Your task to perform on an android device: Search for flights from Buenos aires to Seoul Image 0: 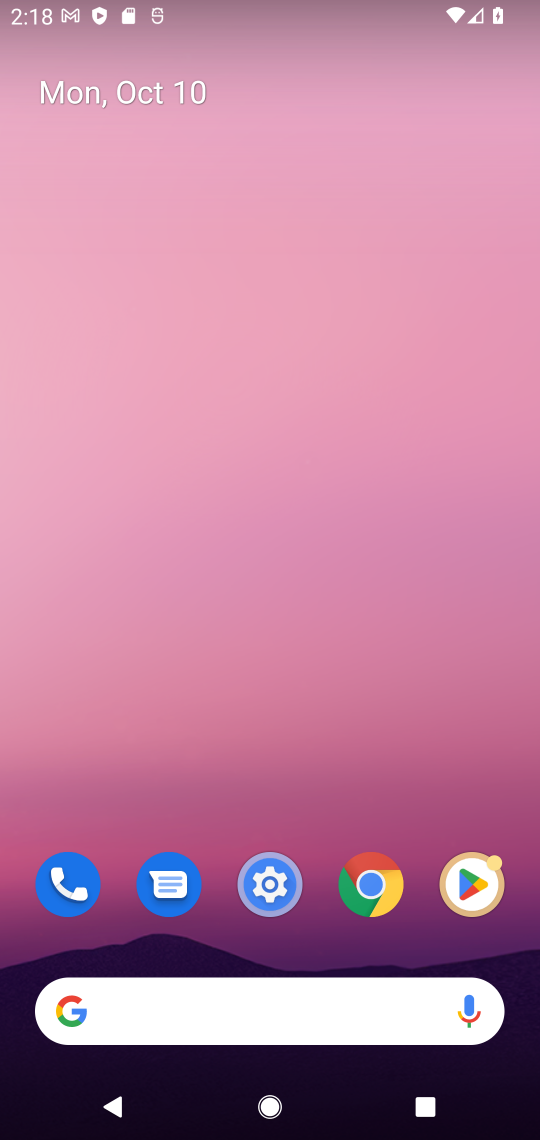
Step 0: click (378, 890)
Your task to perform on an android device: Search for flights from Buenos aires to Seoul Image 1: 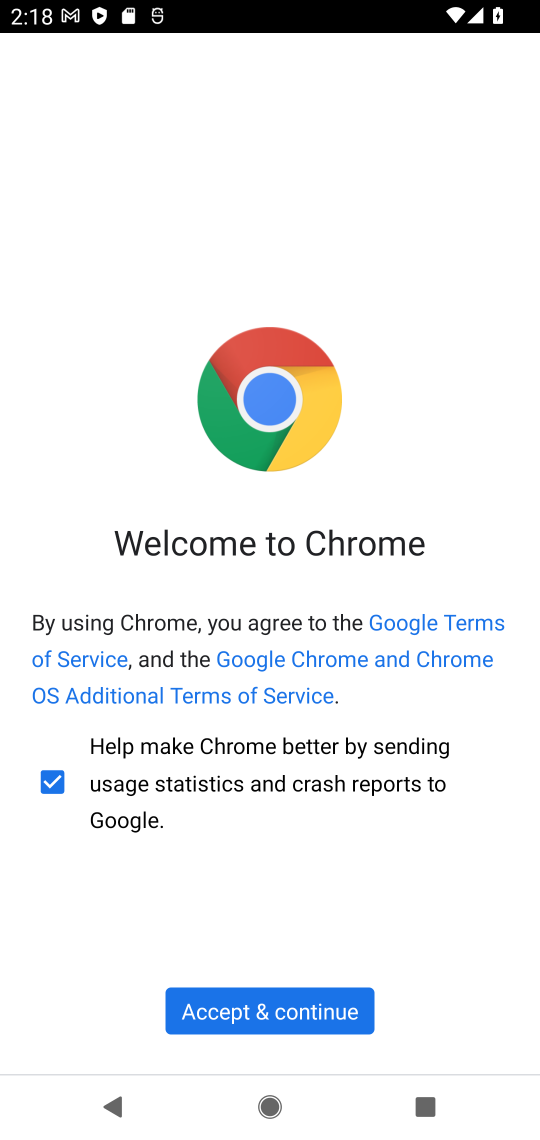
Step 1: click (291, 1006)
Your task to perform on an android device: Search for flights from Buenos aires to Seoul Image 2: 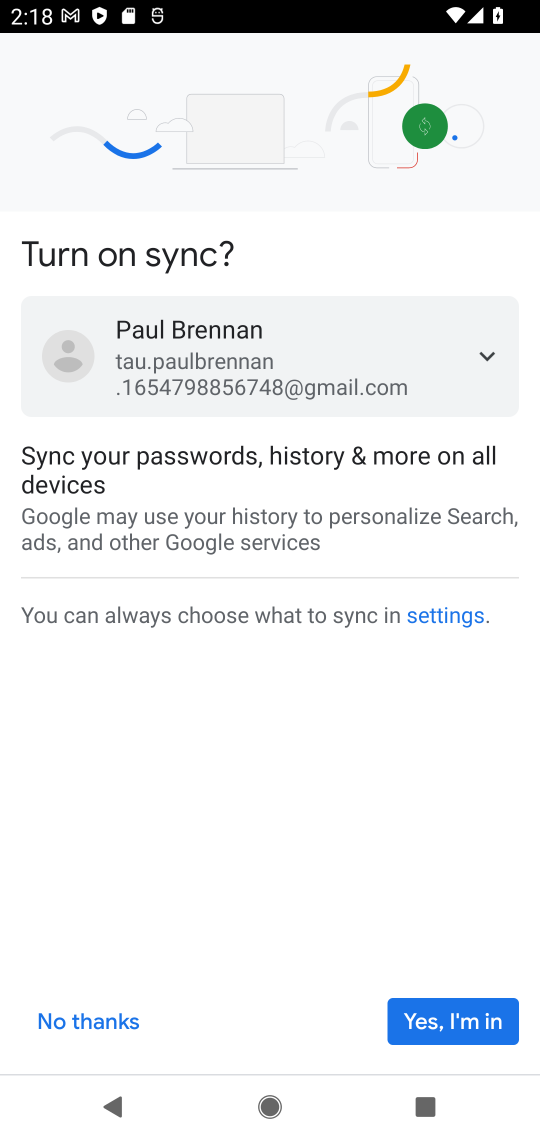
Step 2: click (100, 1031)
Your task to perform on an android device: Search for flights from Buenos aires to Seoul Image 3: 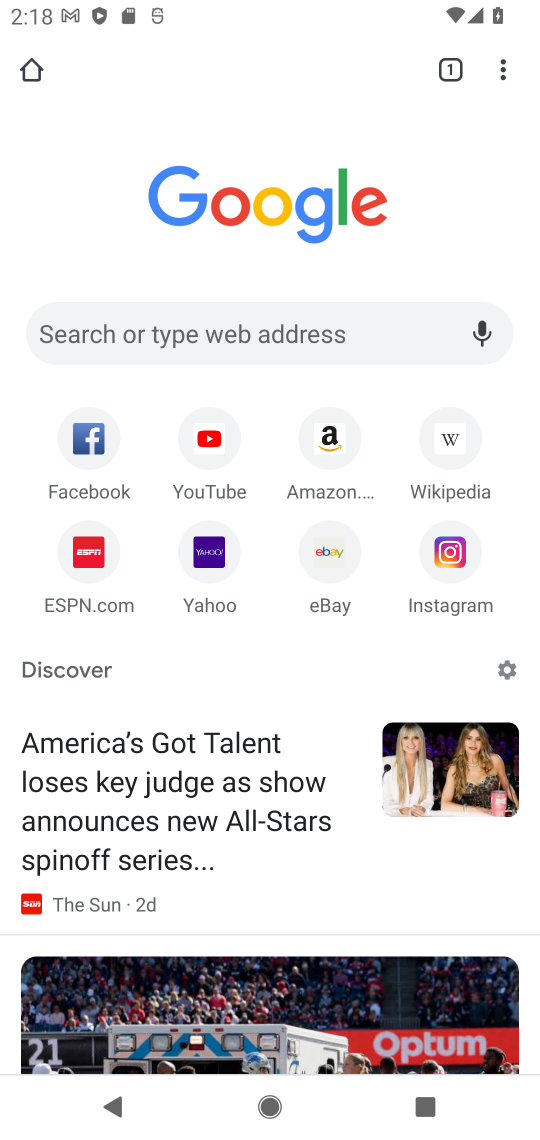
Step 3: click (142, 342)
Your task to perform on an android device: Search for flights from Buenos aires to Seoul Image 4: 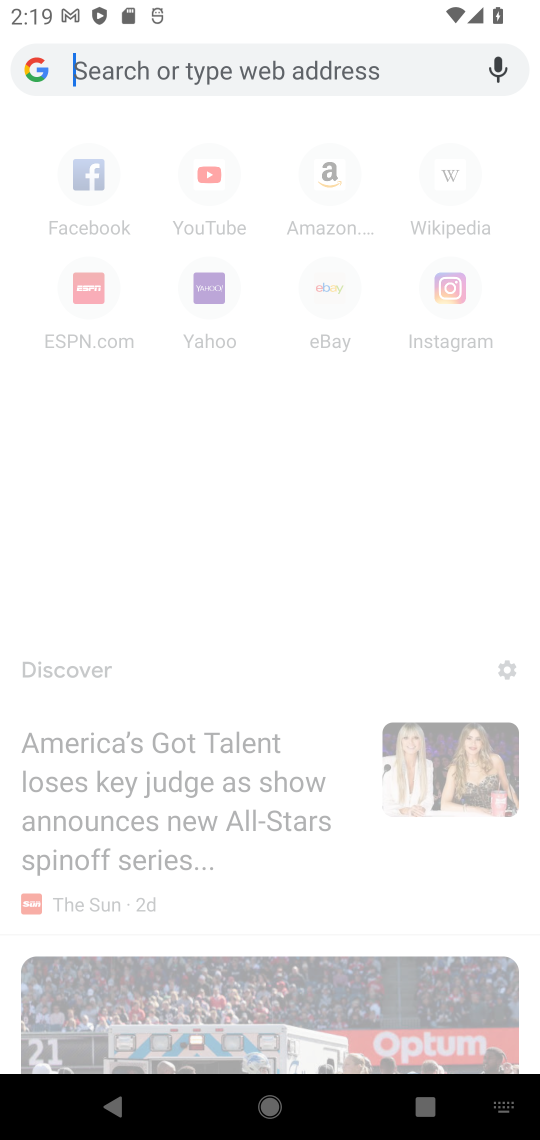
Step 4: type "flights from Buenos aires to Seoul"
Your task to perform on an android device: Search for flights from Buenos aires to Seoul Image 5: 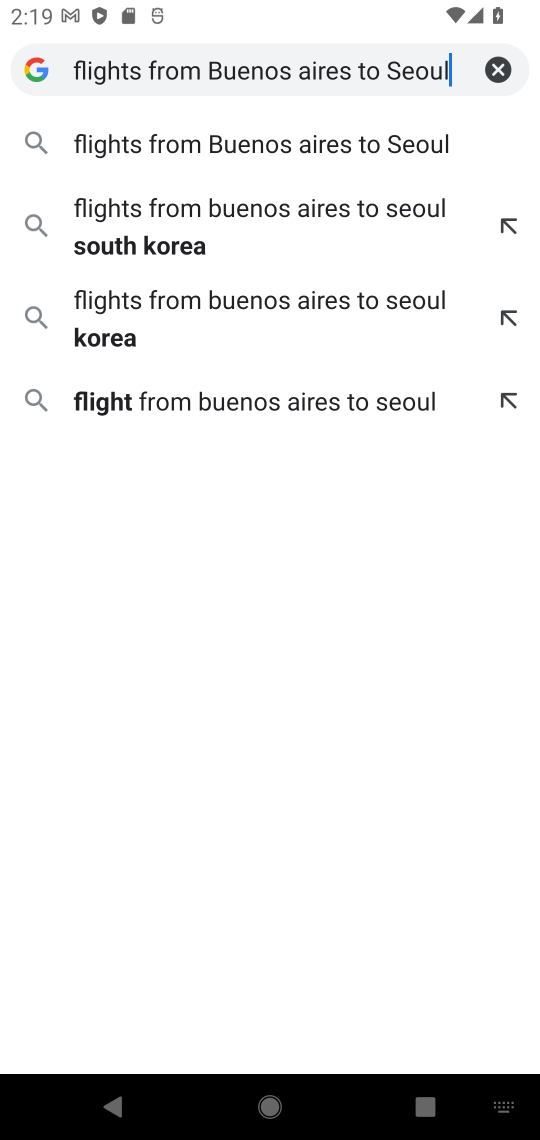
Step 5: click (274, 149)
Your task to perform on an android device: Search for flights from Buenos aires to Seoul Image 6: 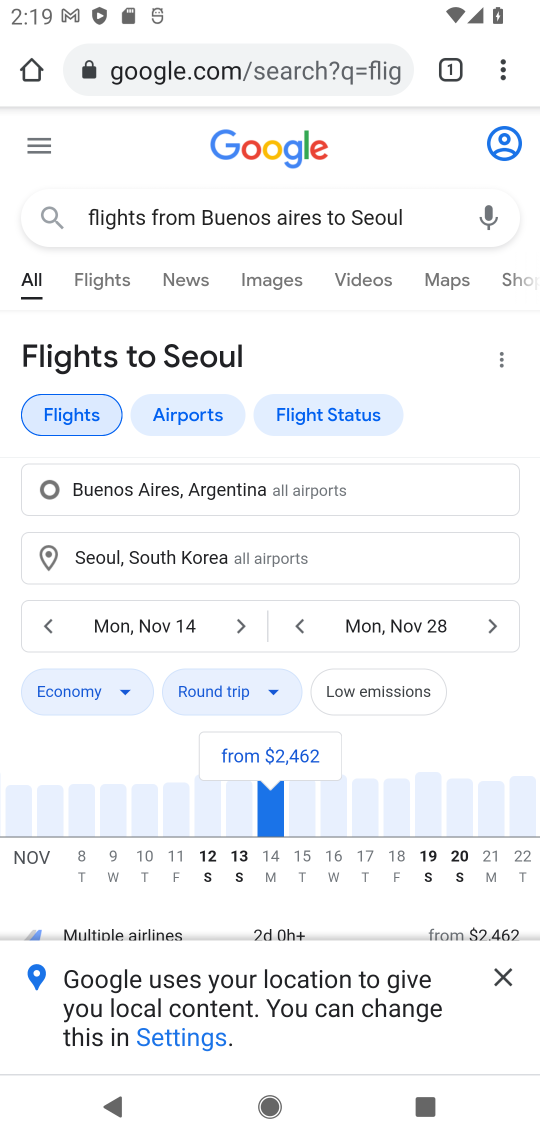
Step 6: task complete